Your task to perform on an android device: move an email to a new category in the gmail app Image 0: 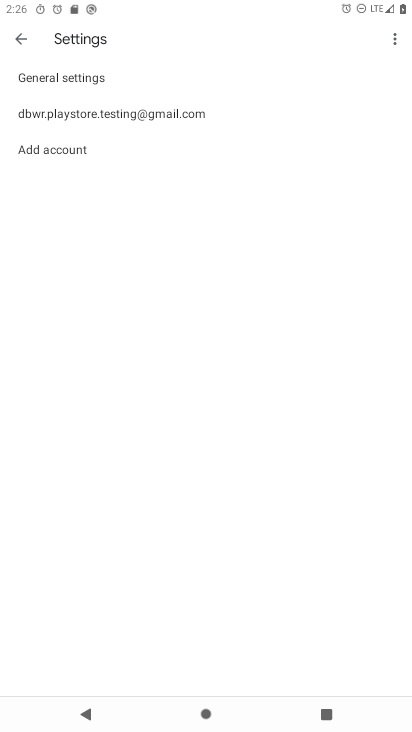
Step 0: click (16, 46)
Your task to perform on an android device: move an email to a new category in the gmail app Image 1: 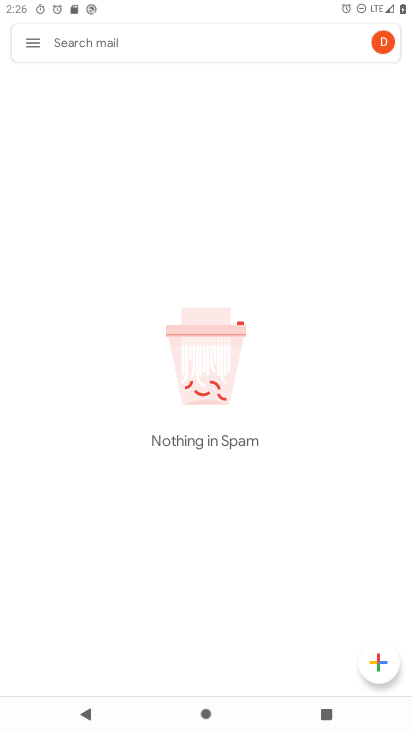
Step 1: click (29, 45)
Your task to perform on an android device: move an email to a new category in the gmail app Image 2: 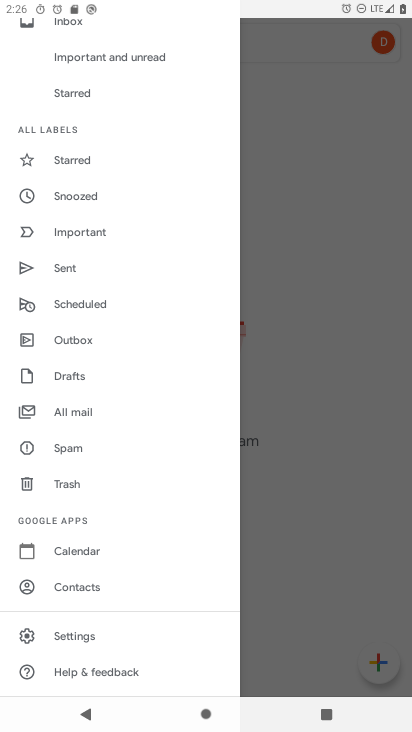
Step 2: click (74, 413)
Your task to perform on an android device: move an email to a new category in the gmail app Image 3: 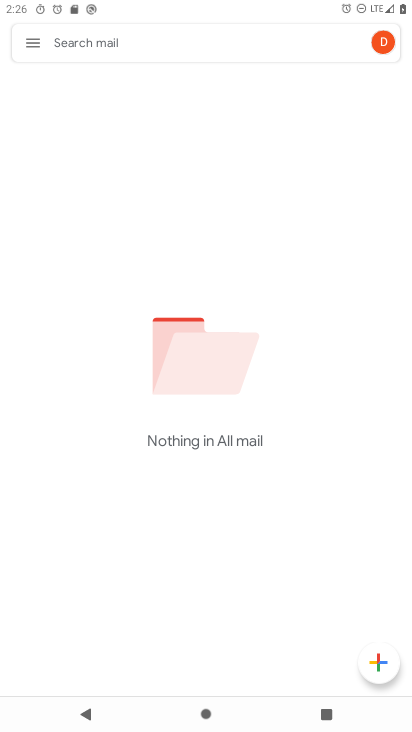
Step 3: task complete